Your task to perform on an android device: uninstall "Lyft - Rideshare, Bikes, Scooters & Transit" Image 0: 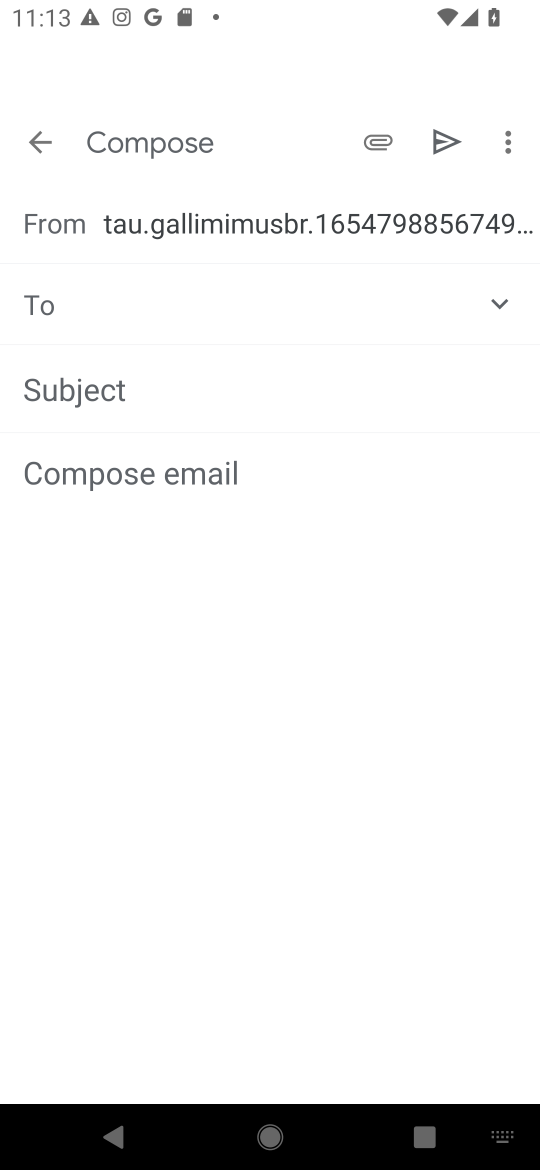
Step 0: press home button
Your task to perform on an android device: uninstall "Lyft - Rideshare, Bikes, Scooters & Transit" Image 1: 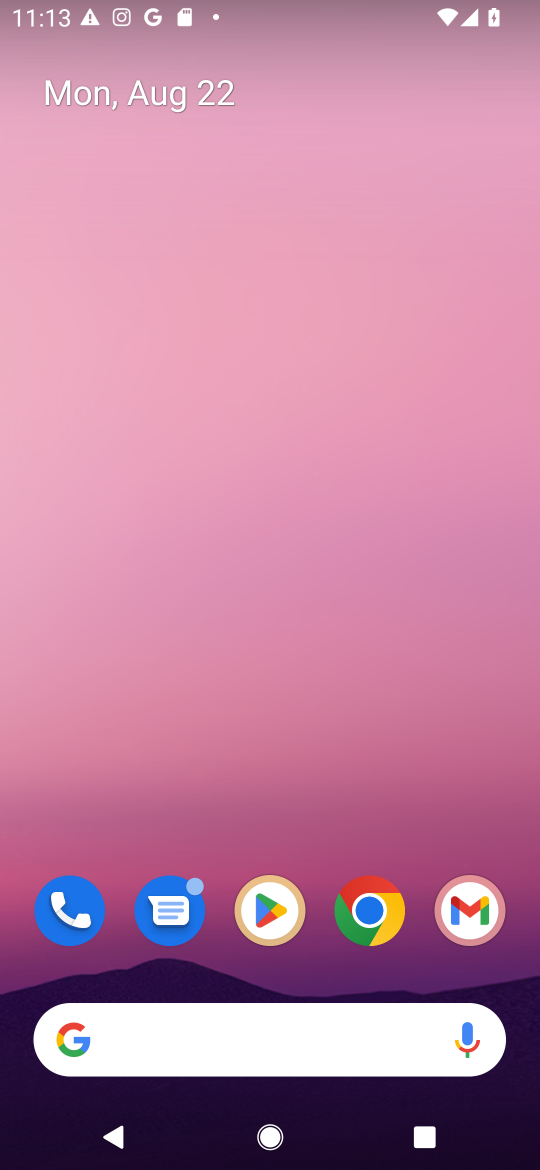
Step 1: click (262, 911)
Your task to perform on an android device: uninstall "Lyft - Rideshare, Bikes, Scooters & Transit" Image 2: 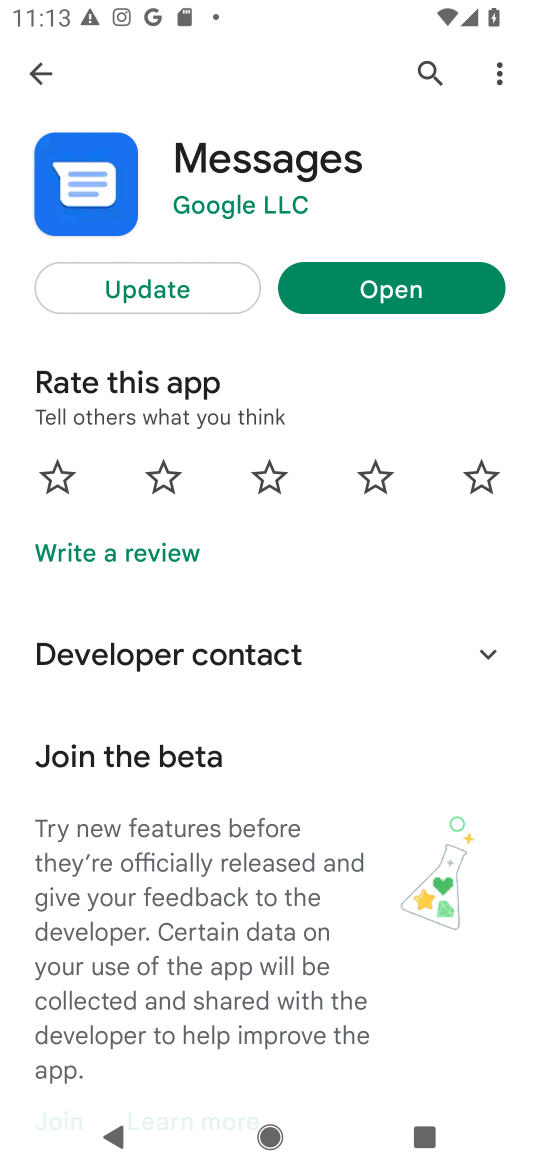
Step 2: click (419, 76)
Your task to perform on an android device: uninstall "Lyft - Rideshare, Bikes, Scooters & Transit" Image 3: 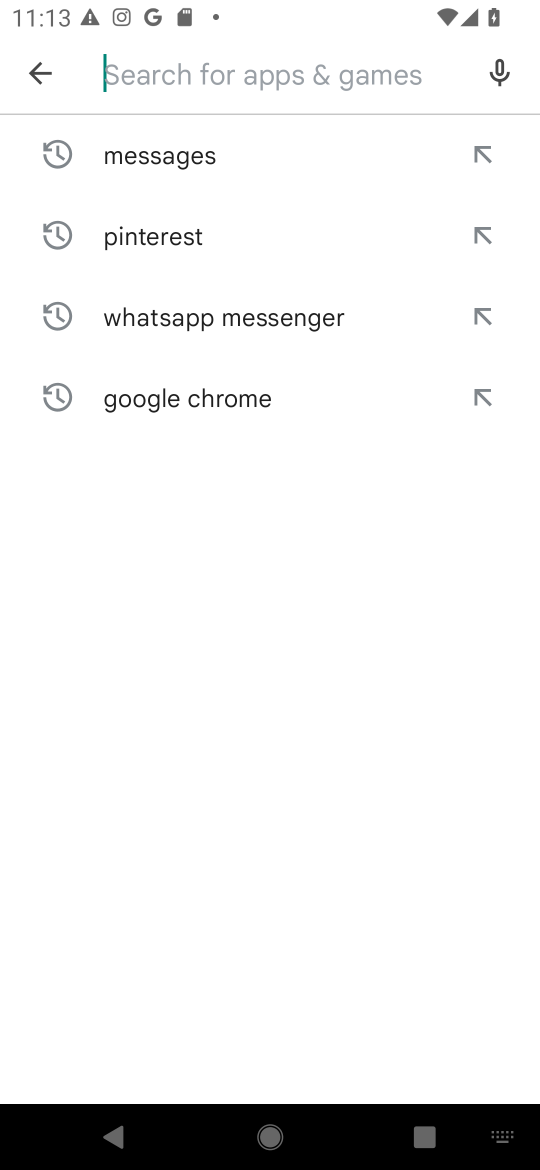
Step 3: type "Lyft - Rideshare, Bikes, Scooters & Transit"
Your task to perform on an android device: uninstall "Lyft - Rideshare, Bikes, Scooters & Transit" Image 4: 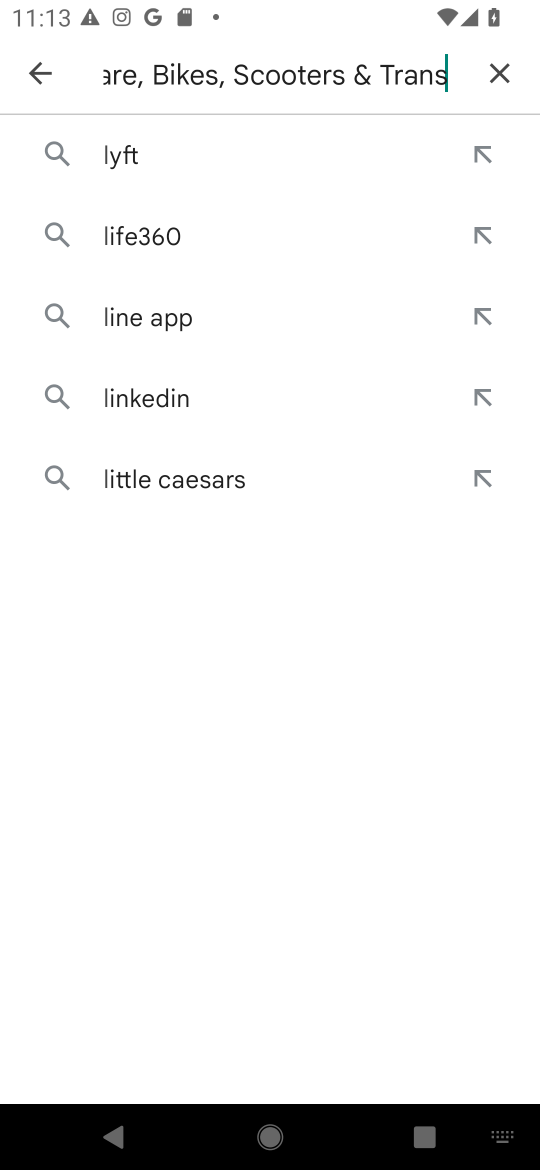
Step 4: type ""
Your task to perform on an android device: uninstall "Lyft - Rideshare, Bikes, Scooters & Transit" Image 5: 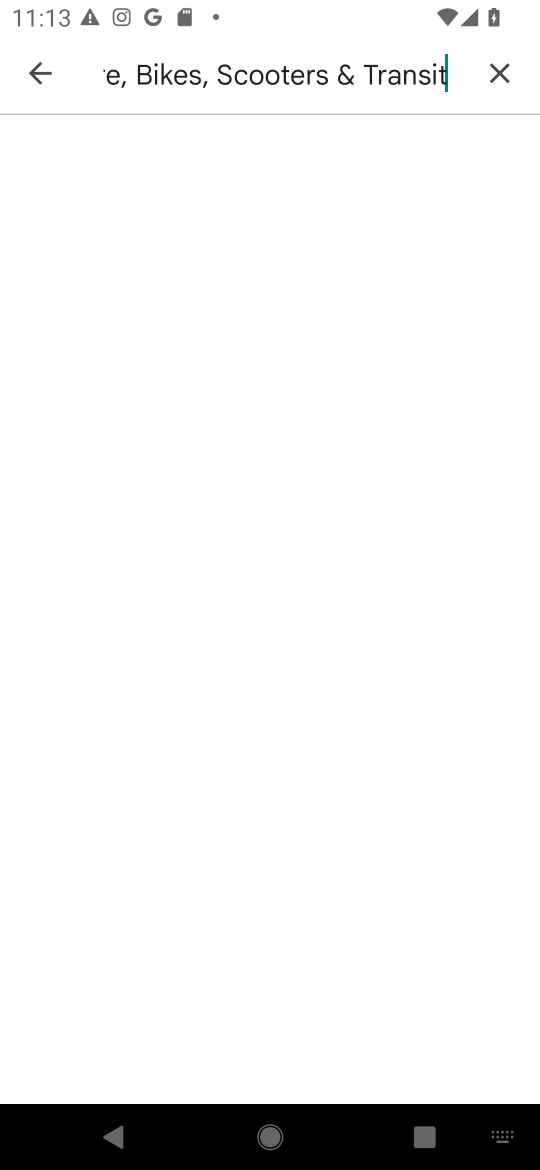
Step 5: click (490, 62)
Your task to perform on an android device: uninstall "Lyft - Rideshare, Bikes, Scooters & Transit" Image 6: 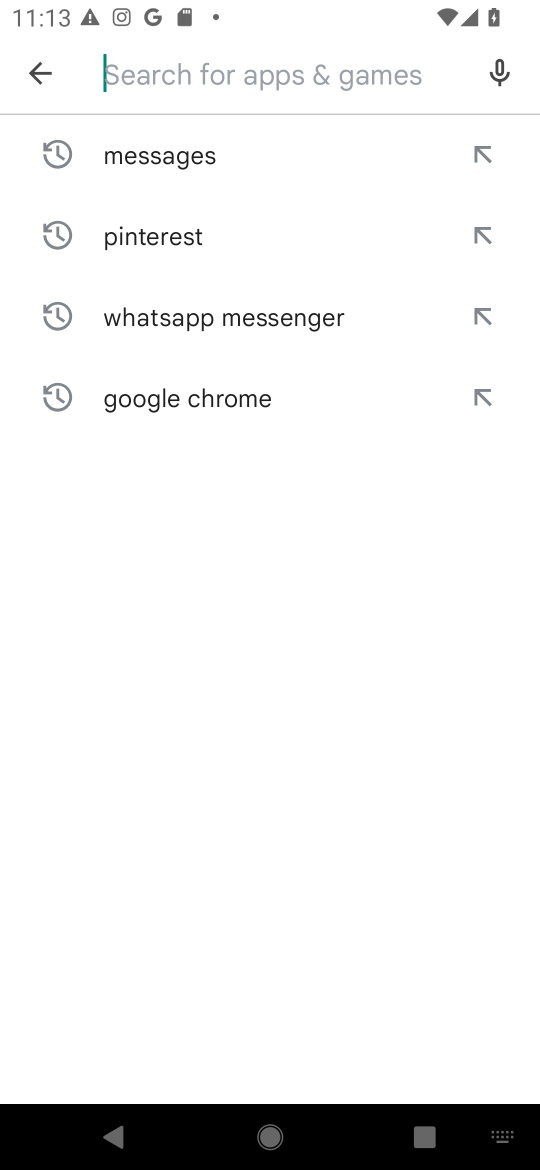
Step 6: type "Lyft"
Your task to perform on an android device: uninstall "Lyft - Rideshare, Bikes, Scooters & Transit" Image 7: 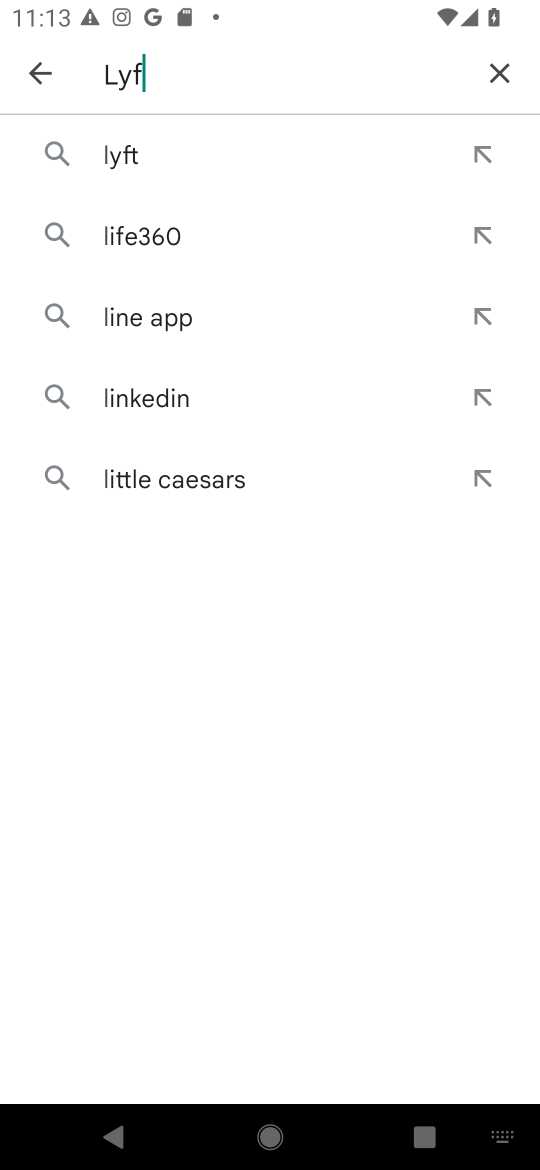
Step 7: type ""
Your task to perform on an android device: uninstall "Lyft - Rideshare, Bikes, Scooters & Transit" Image 8: 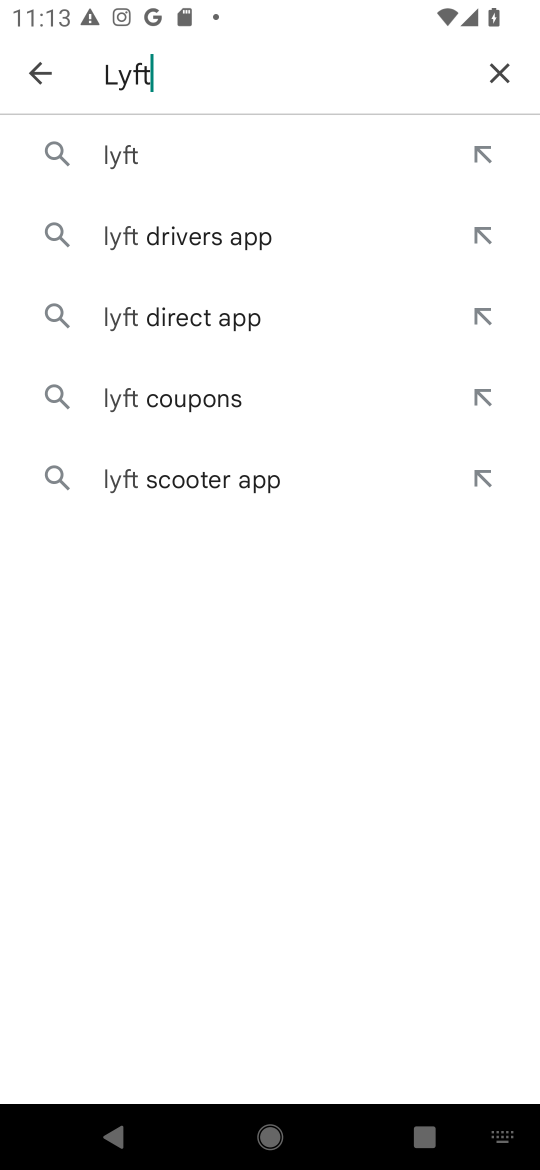
Step 8: click (152, 146)
Your task to perform on an android device: uninstall "Lyft - Rideshare, Bikes, Scooters & Transit" Image 9: 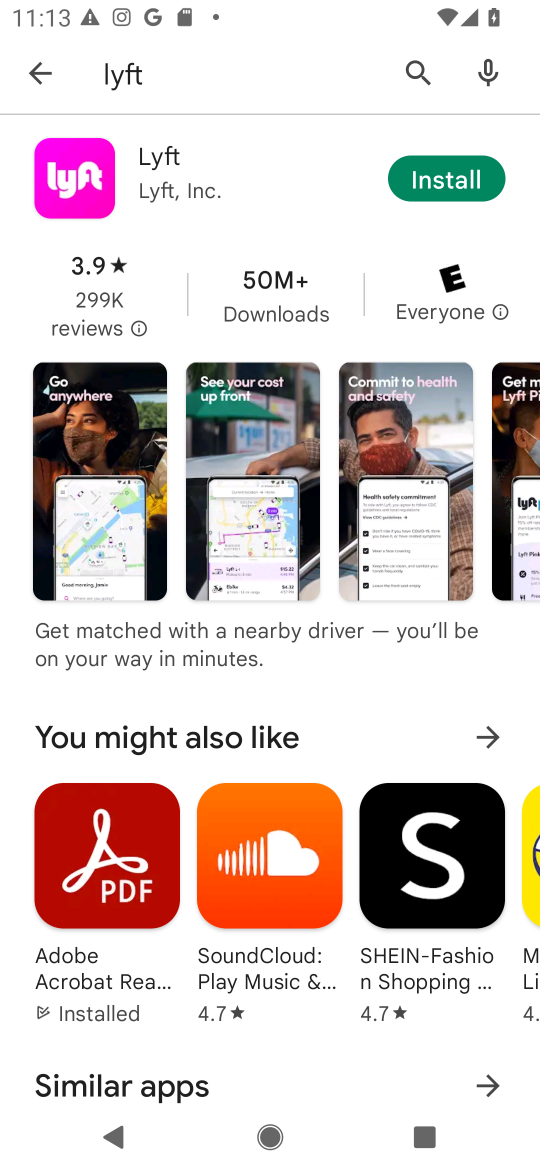
Step 9: task complete